Your task to perform on an android device: Open calendar and show me the second week of next month Image 0: 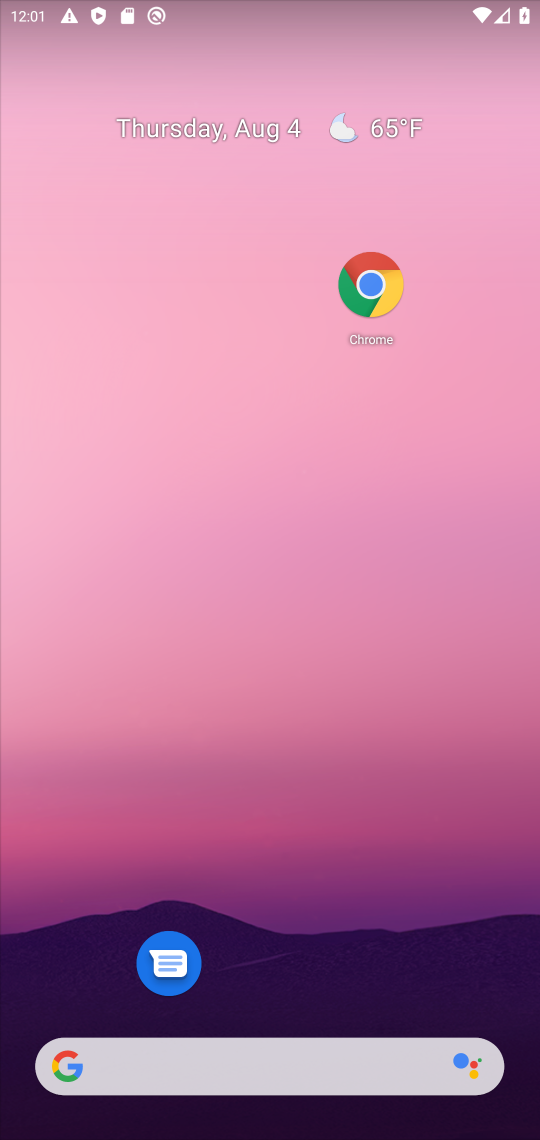
Step 0: drag from (242, 1056) to (292, 4)
Your task to perform on an android device: Open calendar and show me the second week of next month Image 1: 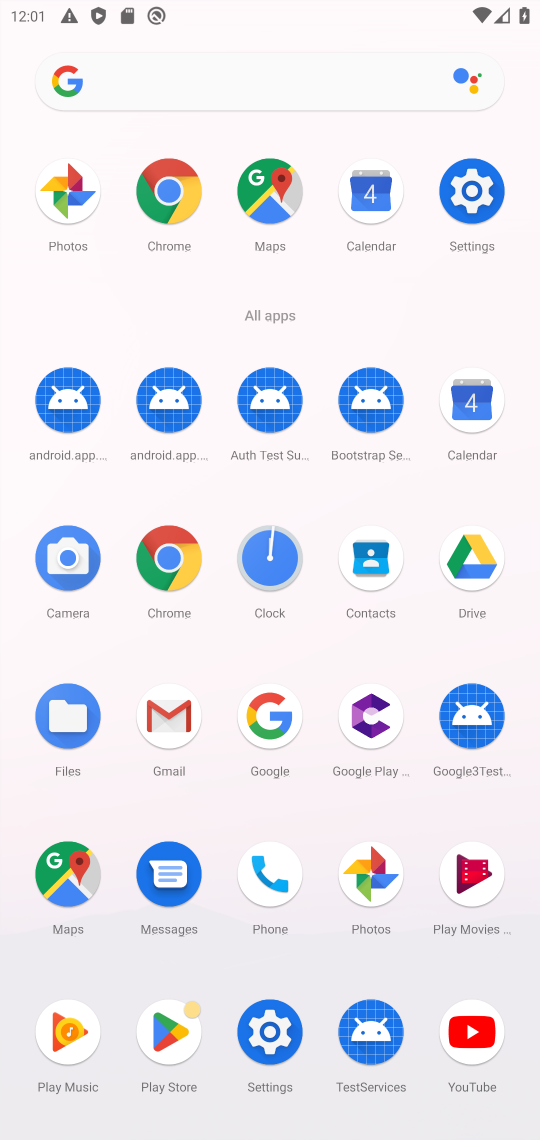
Step 1: click (485, 392)
Your task to perform on an android device: Open calendar and show me the second week of next month Image 2: 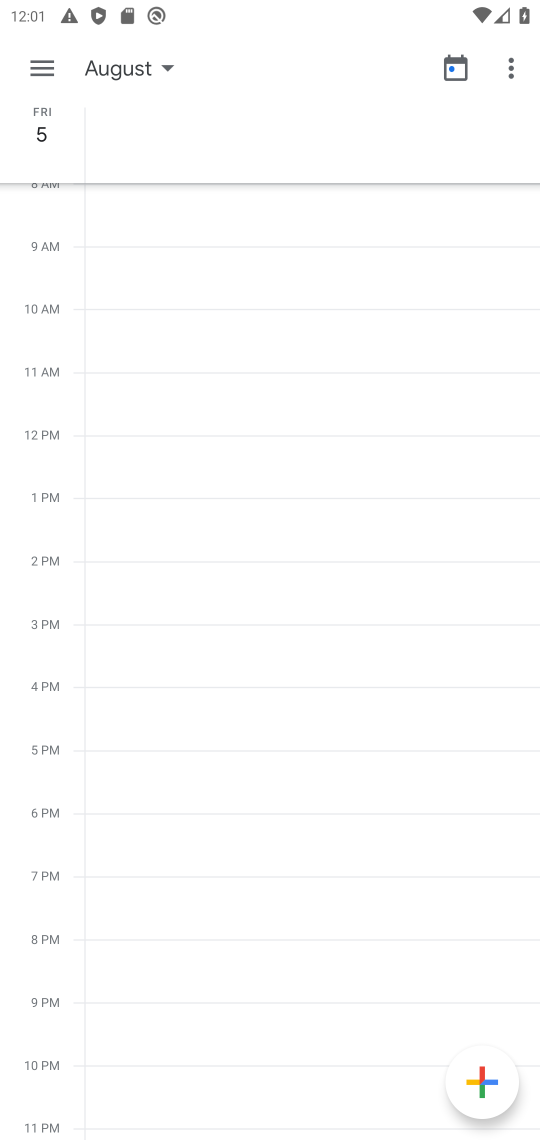
Step 2: click (55, 79)
Your task to perform on an android device: Open calendar and show me the second week of next month Image 3: 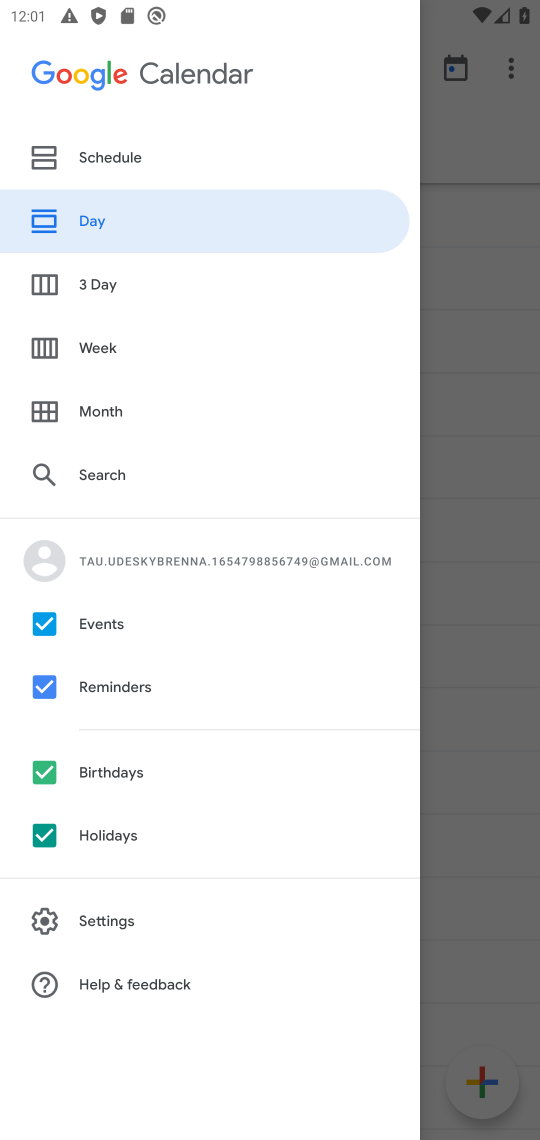
Step 3: click (125, 358)
Your task to perform on an android device: Open calendar and show me the second week of next month Image 4: 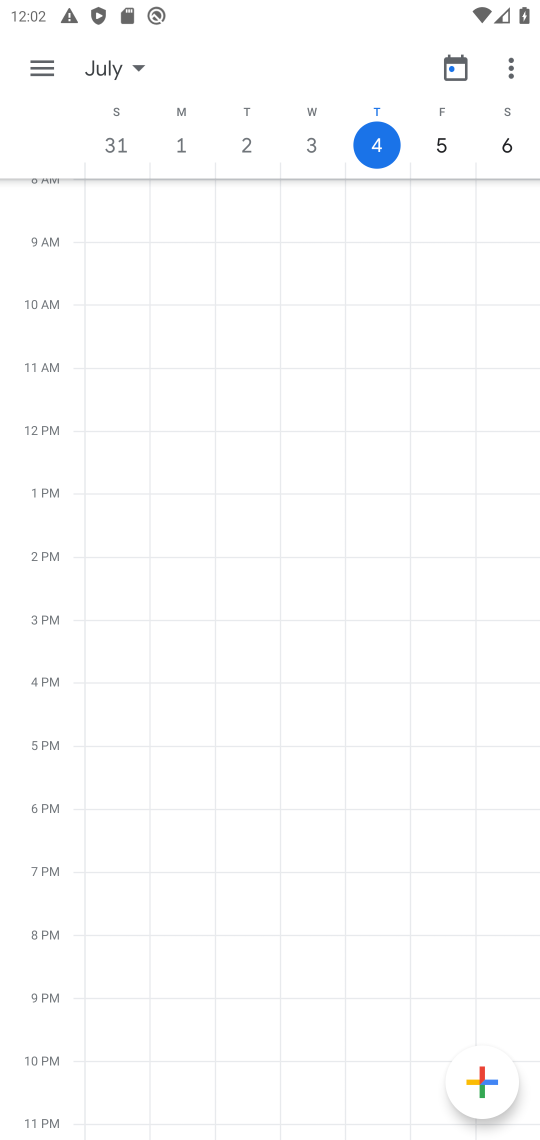
Step 4: task complete